Your task to perform on an android device: Open the stopwatch Image 0: 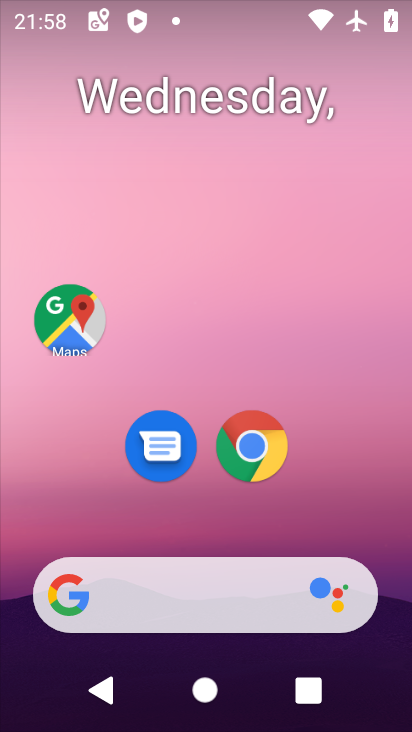
Step 0: press home button
Your task to perform on an android device: Open the stopwatch Image 1: 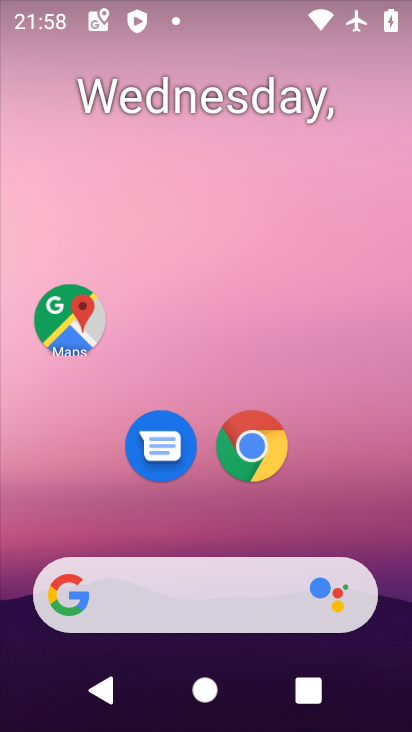
Step 1: drag from (201, 588) to (333, 102)
Your task to perform on an android device: Open the stopwatch Image 2: 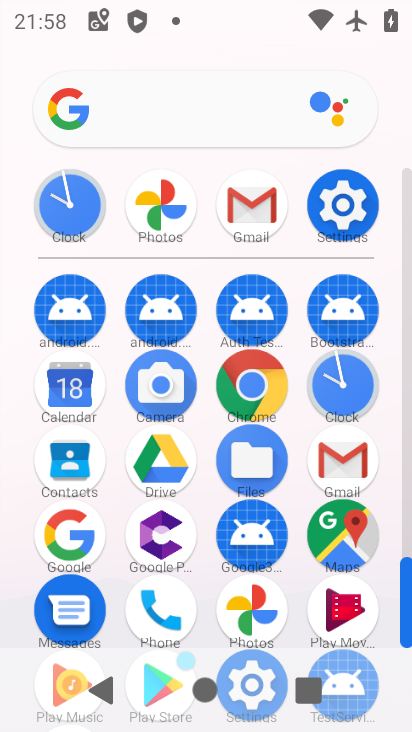
Step 2: click (340, 389)
Your task to perform on an android device: Open the stopwatch Image 3: 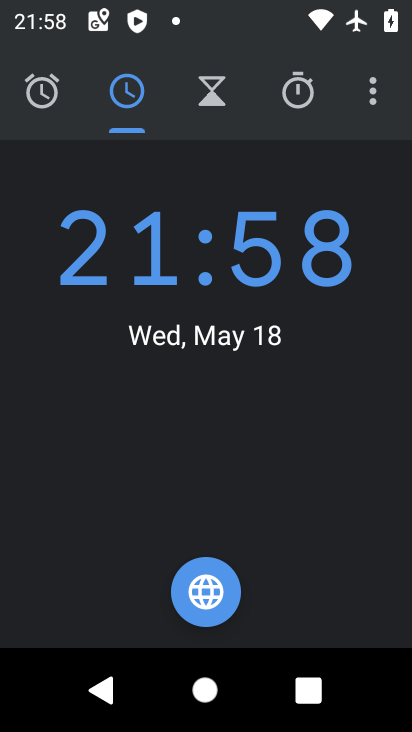
Step 3: click (300, 101)
Your task to perform on an android device: Open the stopwatch Image 4: 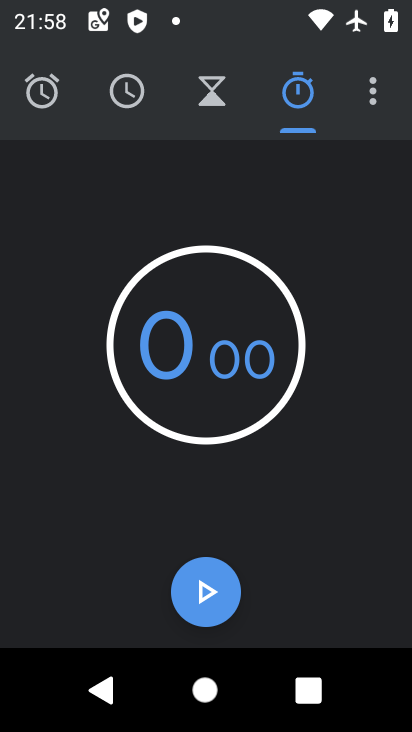
Step 4: click (199, 356)
Your task to perform on an android device: Open the stopwatch Image 5: 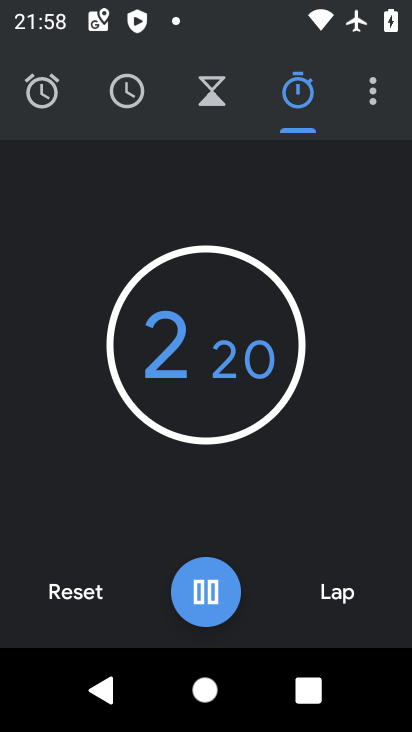
Step 5: click (199, 357)
Your task to perform on an android device: Open the stopwatch Image 6: 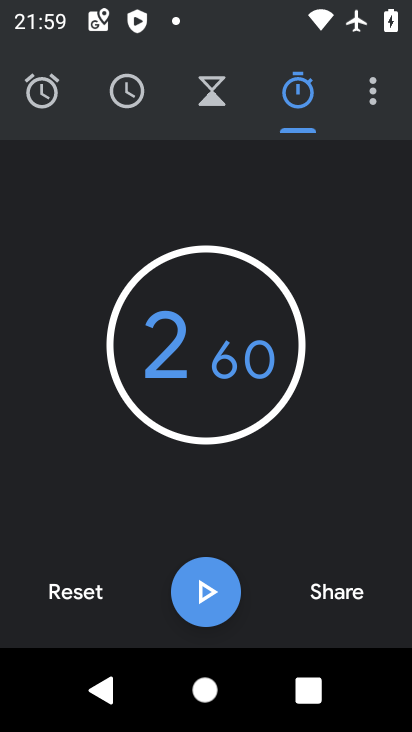
Step 6: task complete